Your task to perform on an android device: Is it going to rain this weekend? Image 0: 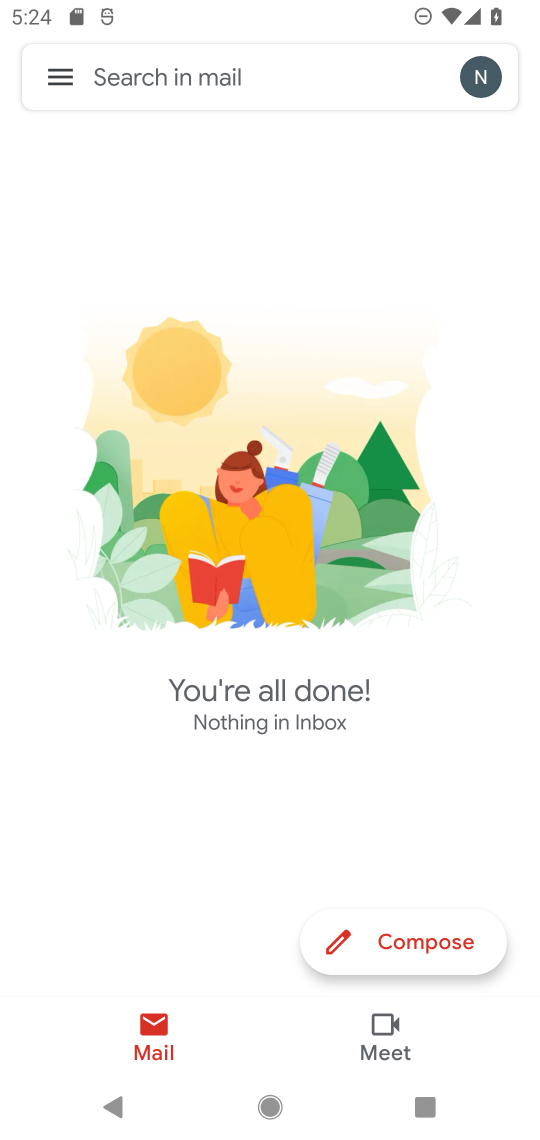
Step 0: press home button
Your task to perform on an android device: Is it going to rain this weekend? Image 1: 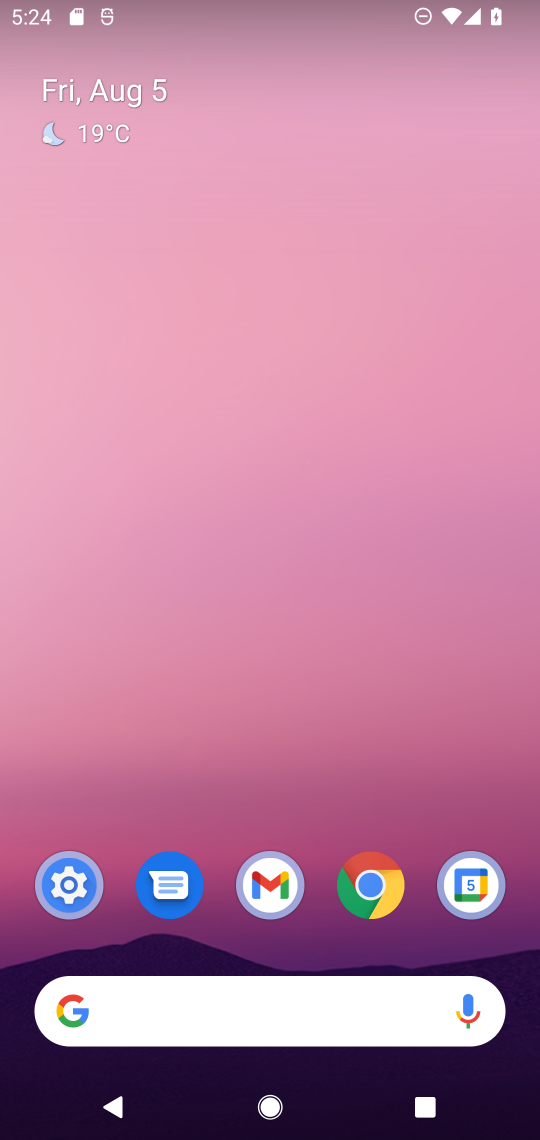
Step 1: drag from (341, 959) to (362, 84)
Your task to perform on an android device: Is it going to rain this weekend? Image 2: 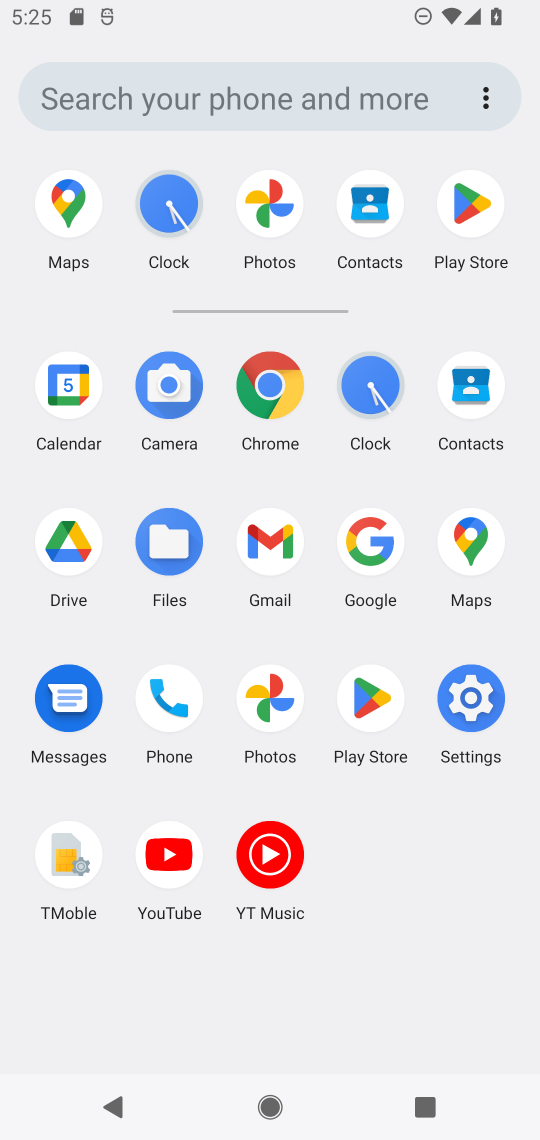
Step 2: click (369, 538)
Your task to perform on an android device: Is it going to rain this weekend? Image 3: 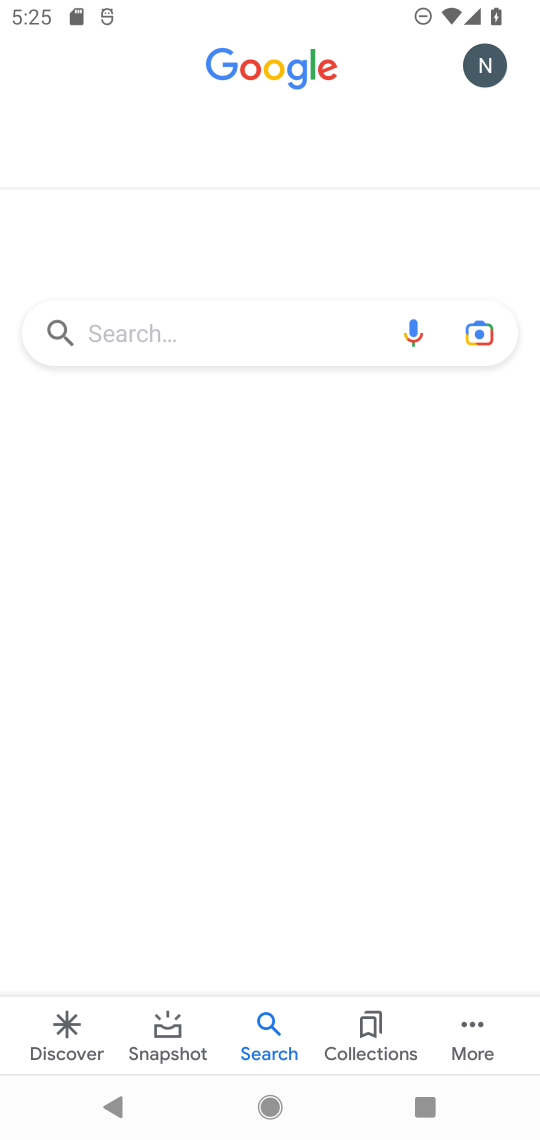
Step 3: click (261, 323)
Your task to perform on an android device: Is it going to rain this weekend? Image 4: 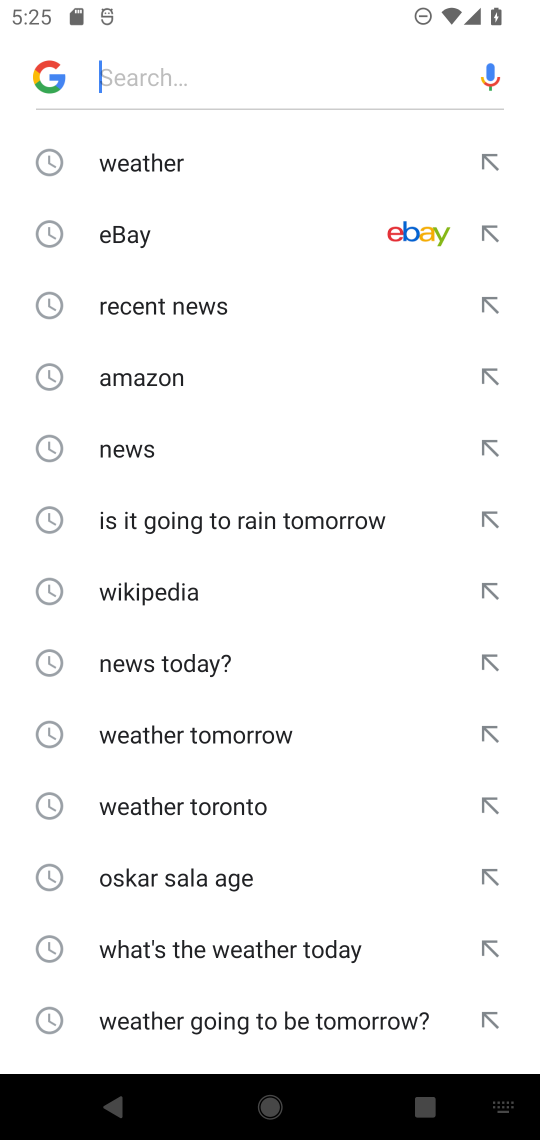
Step 4: click (142, 153)
Your task to perform on an android device: Is it going to rain this weekend? Image 5: 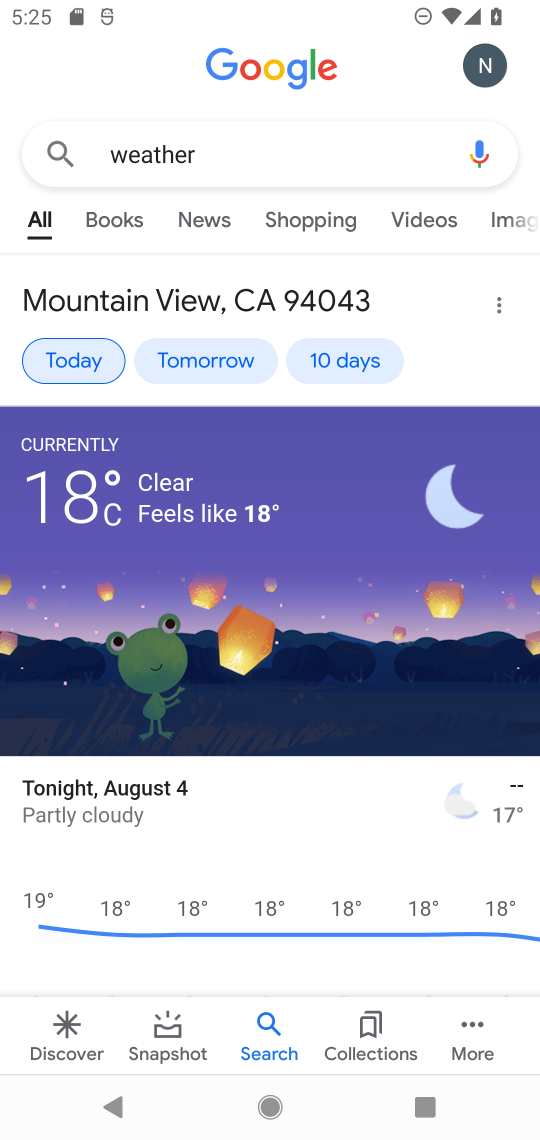
Step 5: click (363, 357)
Your task to perform on an android device: Is it going to rain this weekend? Image 6: 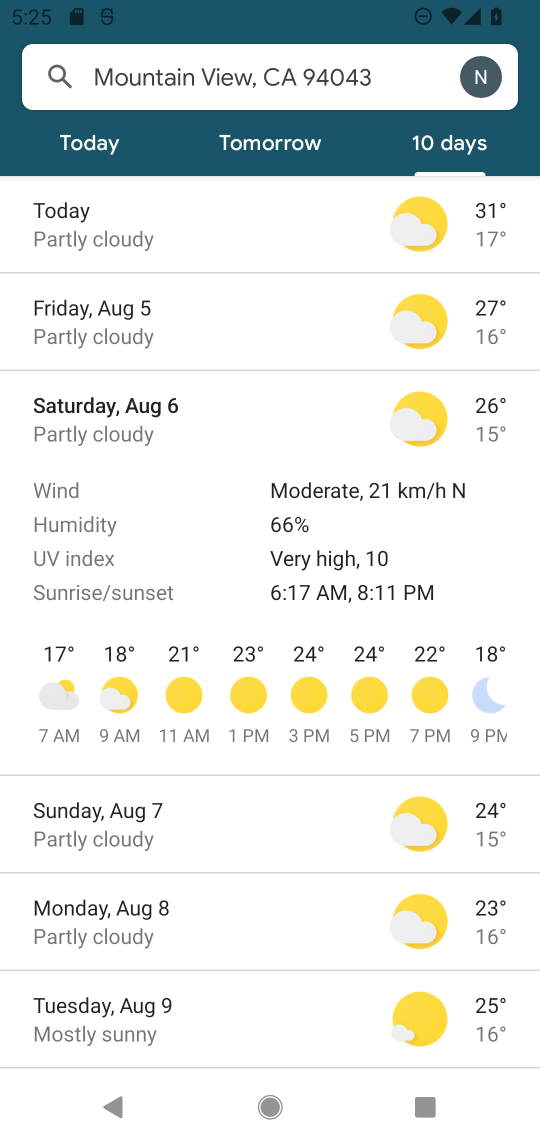
Step 6: task complete